Your task to perform on an android device: Open settings on Google Maps Image 0: 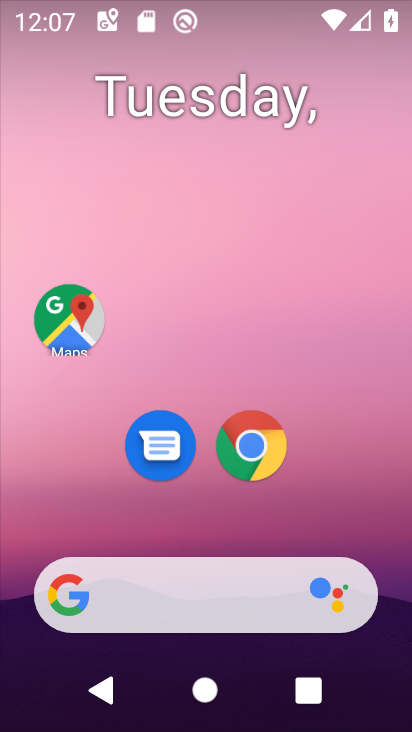
Step 0: click (66, 321)
Your task to perform on an android device: Open settings on Google Maps Image 1: 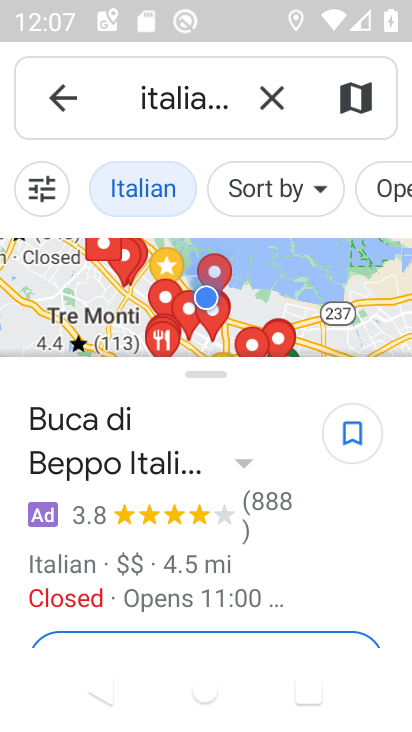
Step 1: click (68, 102)
Your task to perform on an android device: Open settings on Google Maps Image 2: 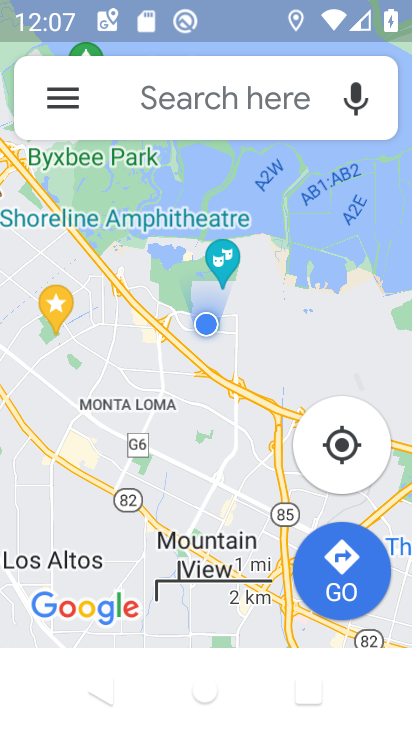
Step 2: click (68, 98)
Your task to perform on an android device: Open settings on Google Maps Image 3: 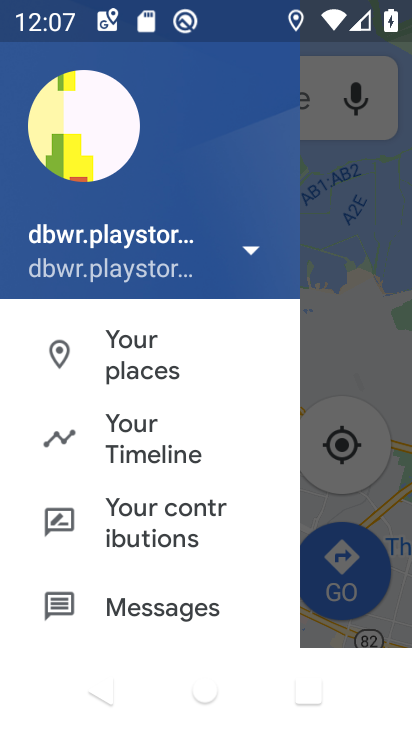
Step 3: drag from (207, 566) to (140, 170)
Your task to perform on an android device: Open settings on Google Maps Image 4: 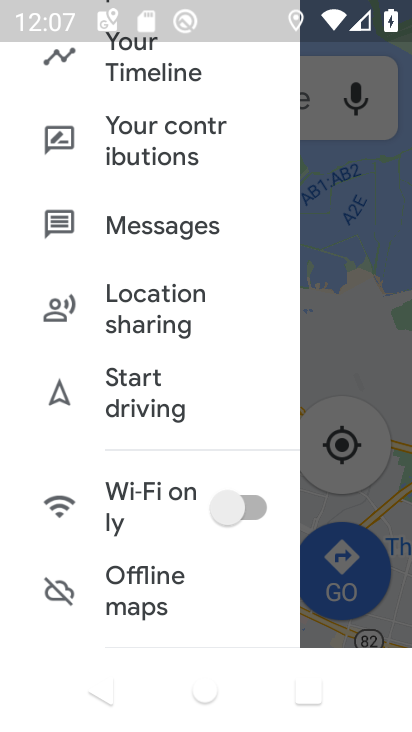
Step 4: drag from (161, 534) to (112, 174)
Your task to perform on an android device: Open settings on Google Maps Image 5: 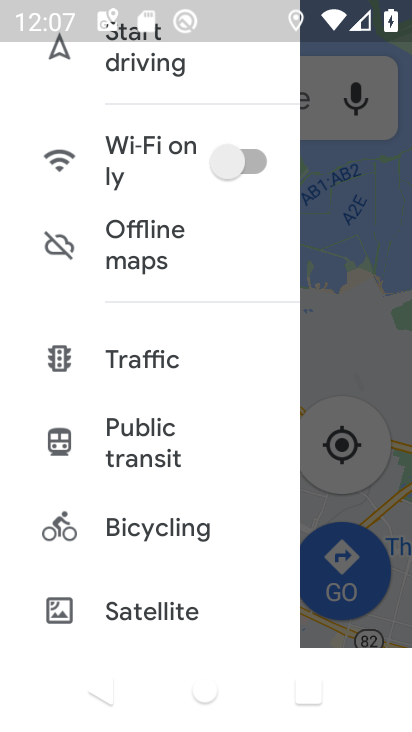
Step 5: drag from (181, 559) to (117, 114)
Your task to perform on an android device: Open settings on Google Maps Image 6: 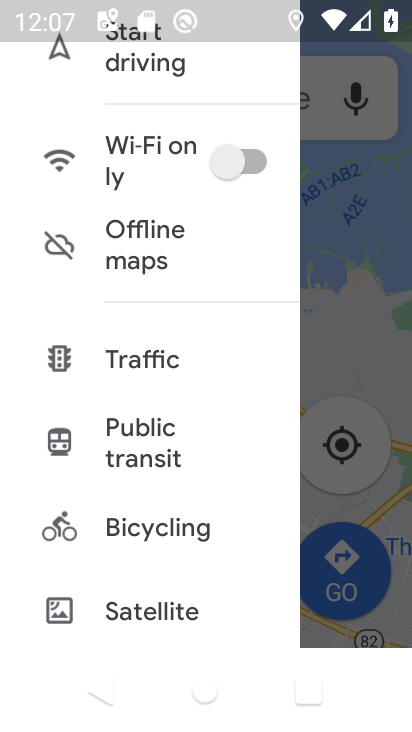
Step 6: drag from (157, 562) to (142, 184)
Your task to perform on an android device: Open settings on Google Maps Image 7: 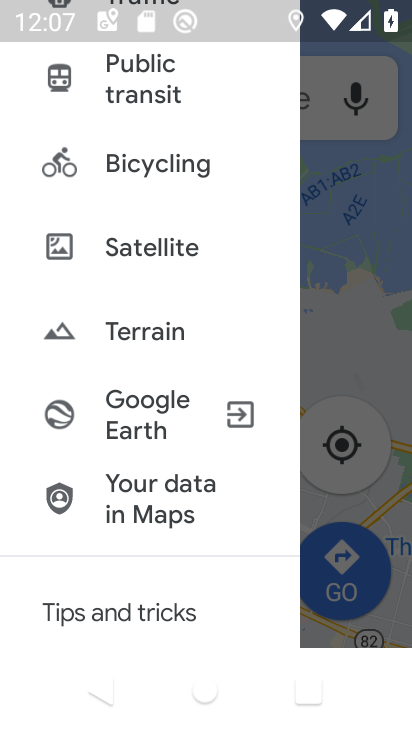
Step 7: drag from (187, 568) to (157, 28)
Your task to perform on an android device: Open settings on Google Maps Image 8: 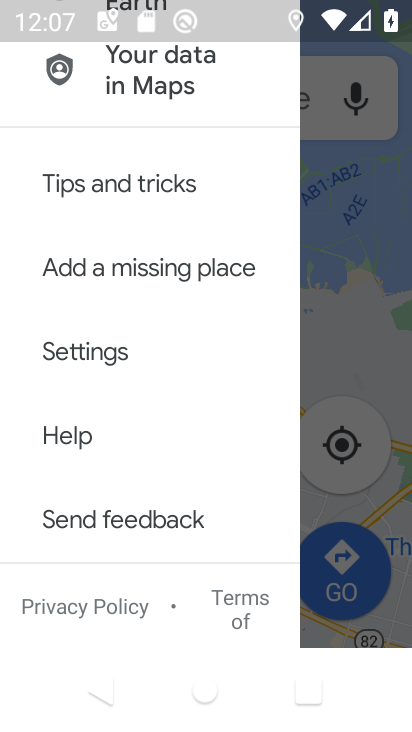
Step 8: click (88, 339)
Your task to perform on an android device: Open settings on Google Maps Image 9: 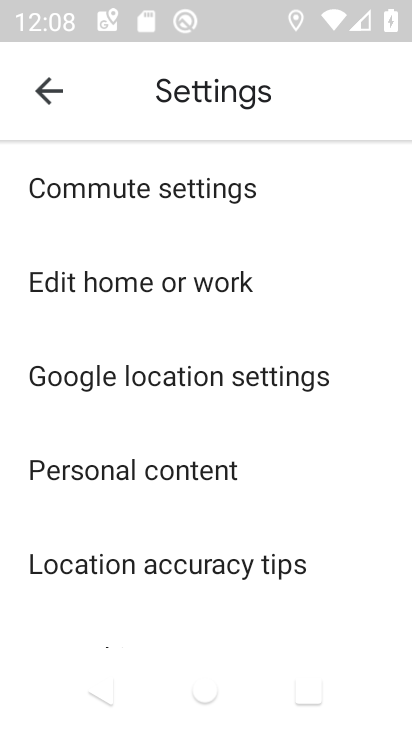
Step 9: task complete